Your task to perform on an android device: Go to CNN.com Image 0: 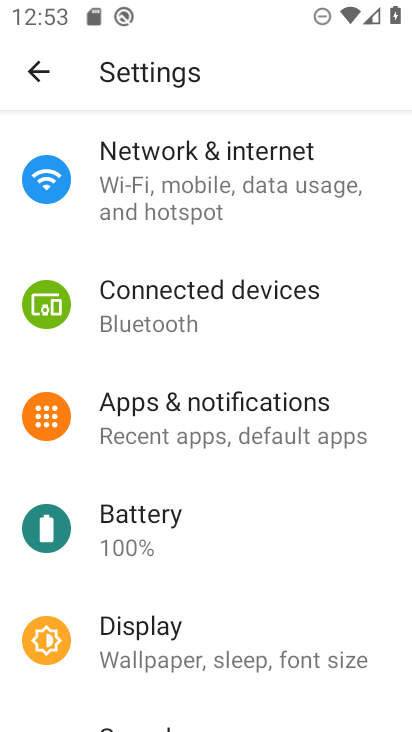
Step 0: press home button
Your task to perform on an android device: Go to CNN.com Image 1: 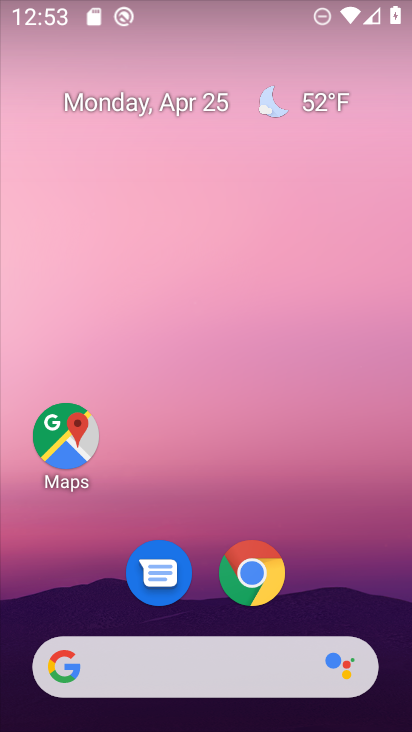
Step 1: click (253, 572)
Your task to perform on an android device: Go to CNN.com Image 2: 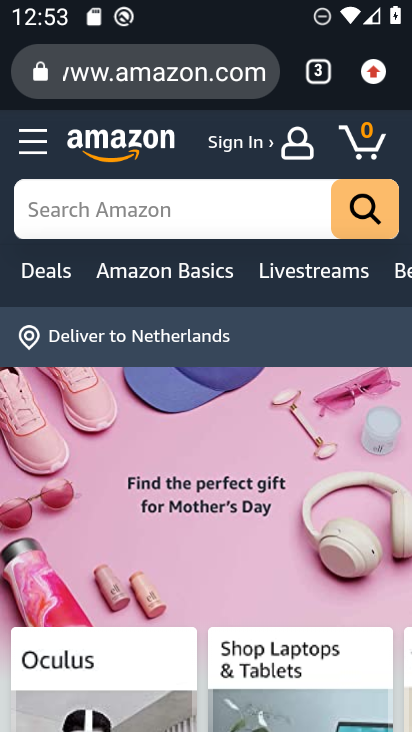
Step 2: click (375, 82)
Your task to perform on an android device: Go to CNN.com Image 3: 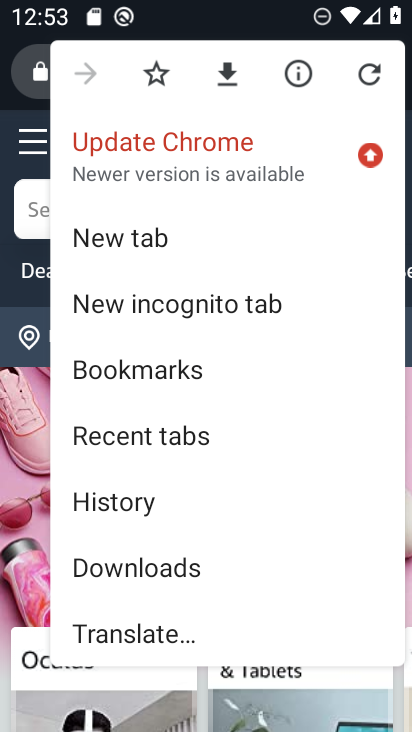
Step 3: click (106, 243)
Your task to perform on an android device: Go to CNN.com Image 4: 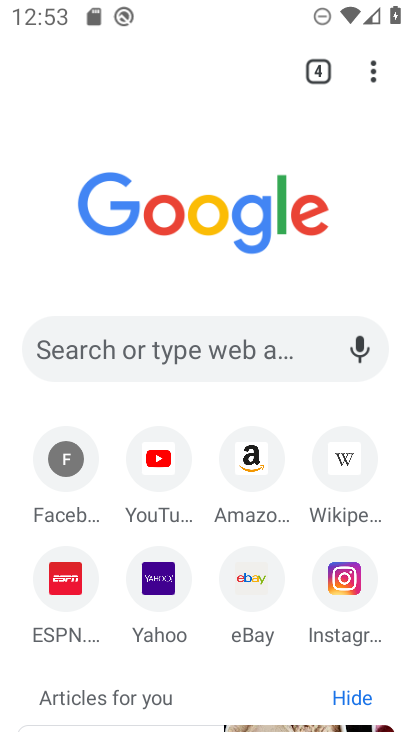
Step 4: click (182, 354)
Your task to perform on an android device: Go to CNN.com Image 5: 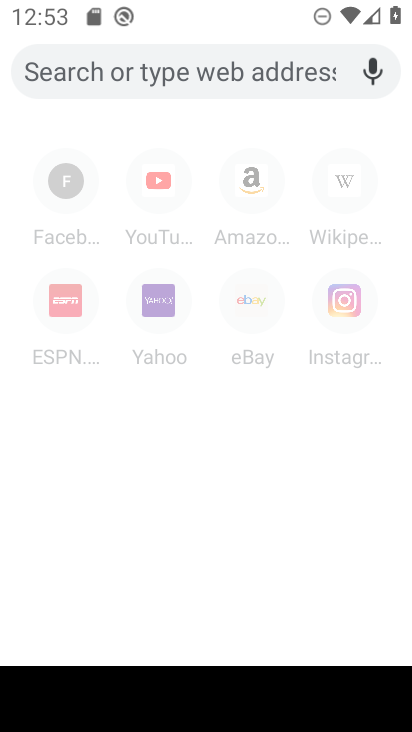
Step 5: type "CNN.com"
Your task to perform on an android device: Go to CNN.com Image 6: 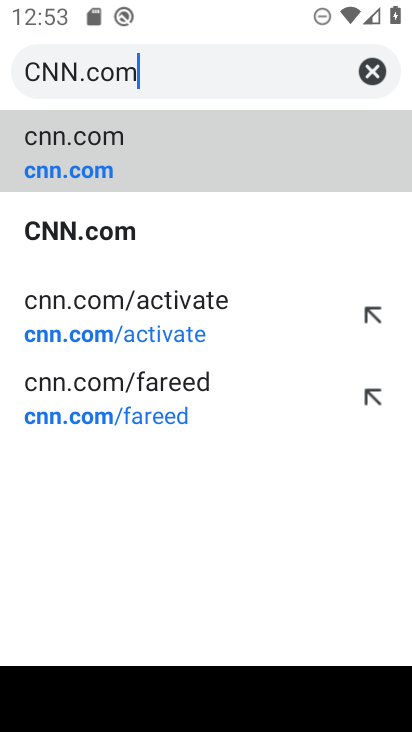
Step 6: click (69, 230)
Your task to perform on an android device: Go to CNN.com Image 7: 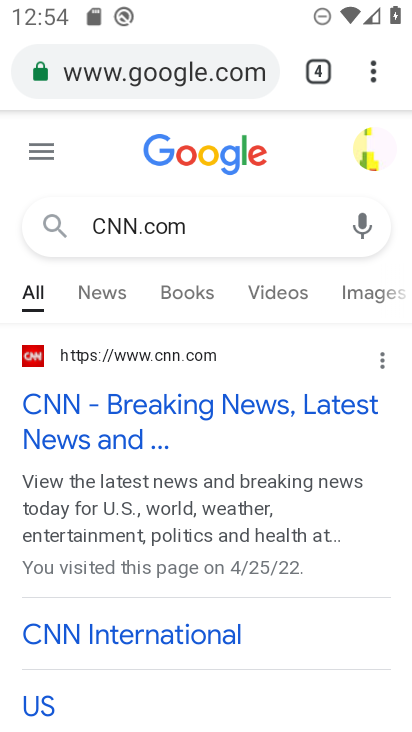
Step 7: click (109, 414)
Your task to perform on an android device: Go to CNN.com Image 8: 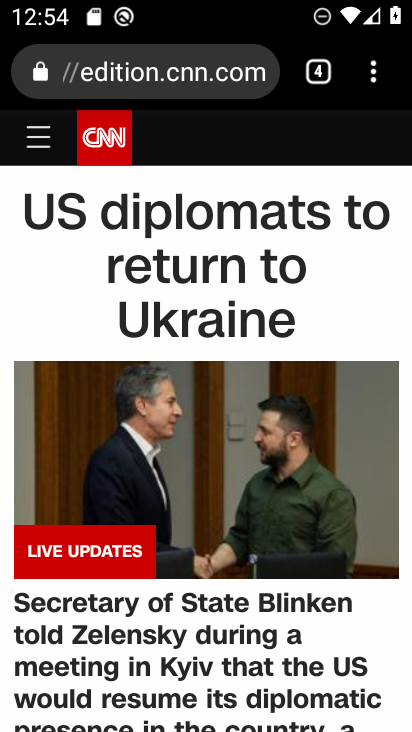
Step 8: task complete